Your task to perform on an android device: open a bookmark in the chrome app Image 0: 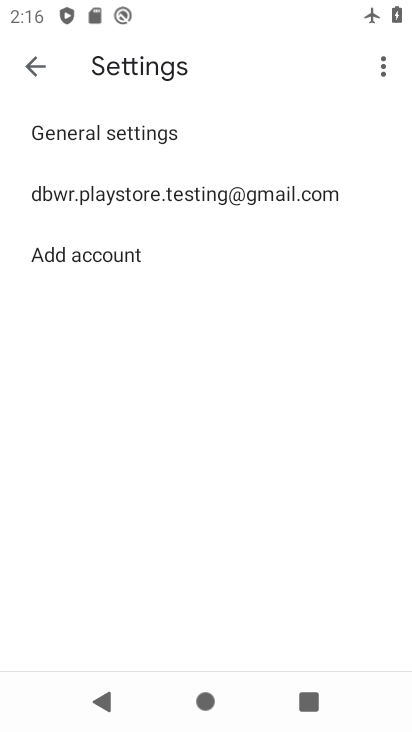
Step 0: press home button
Your task to perform on an android device: open a bookmark in the chrome app Image 1: 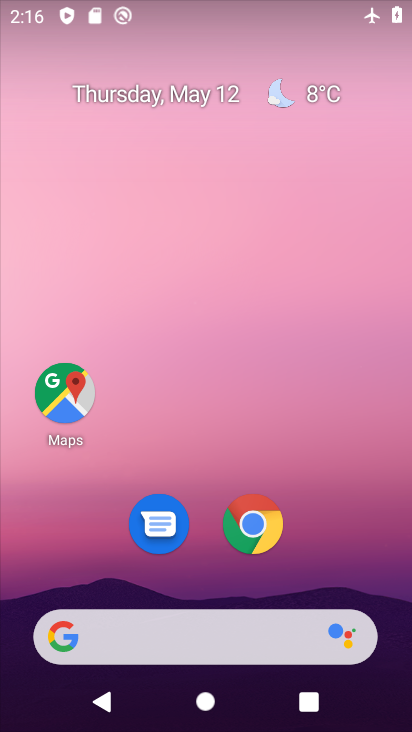
Step 1: click (268, 523)
Your task to perform on an android device: open a bookmark in the chrome app Image 2: 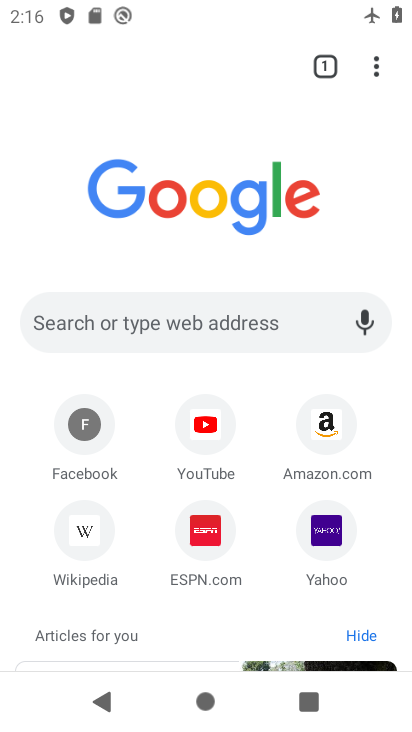
Step 2: click (377, 74)
Your task to perform on an android device: open a bookmark in the chrome app Image 3: 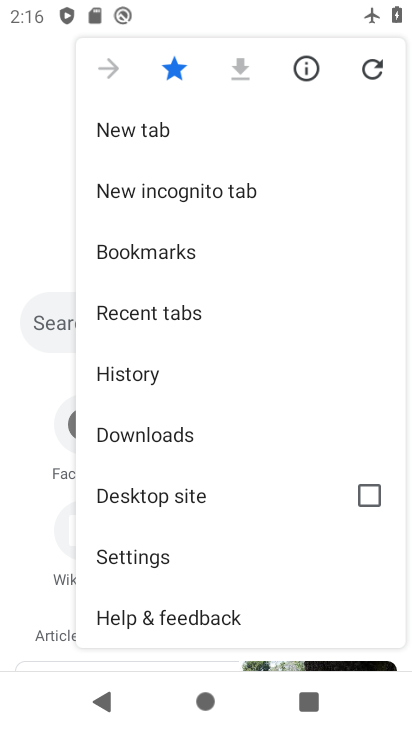
Step 3: click (191, 249)
Your task to perform on an android device: open a bookmark in the chrome app Image 4: 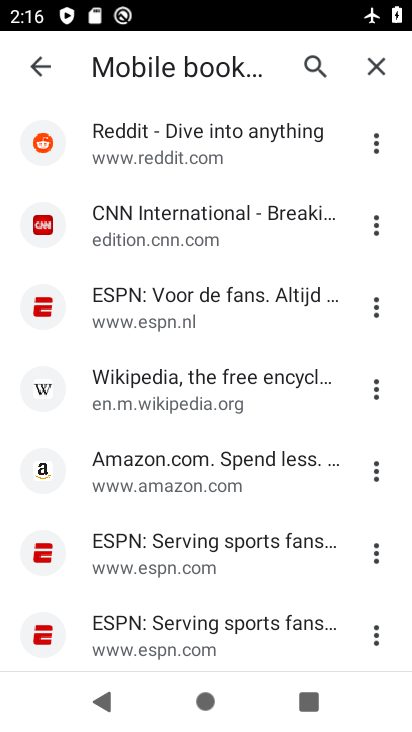
Step 4: click (248, 213)
Your task to perform on an android device: open a bookmark in the chrome app Image 5: 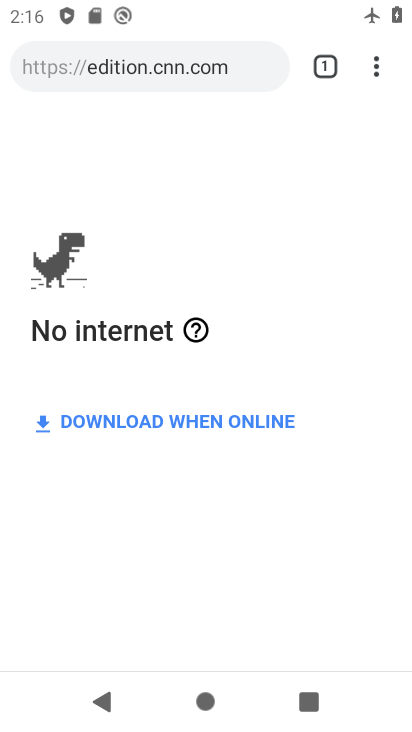
Step 5: task complete